Your task to perform on an android device: add a contact in the contacts app Image 0: 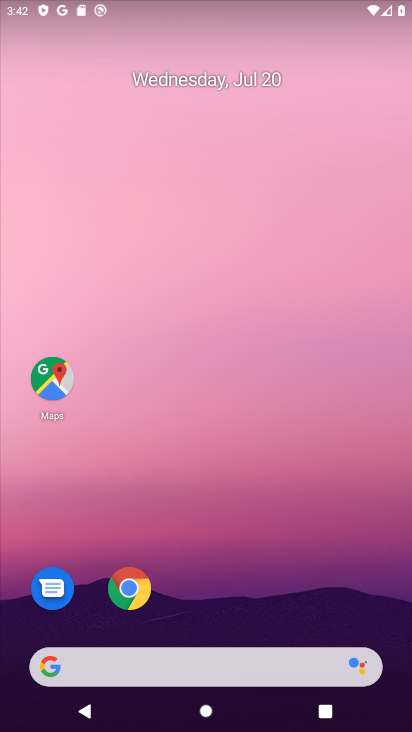
Step 0: drag from (194, 601) to (147, 291)
Your task to perform on an android device: add a contact in the contacts app Image 1: 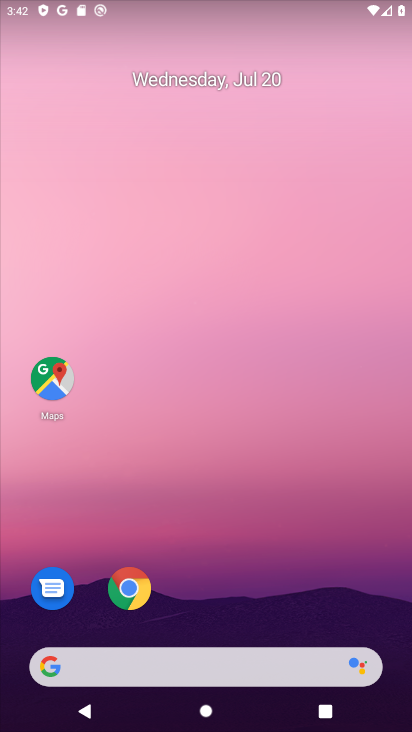
Step 1: click (202, 255)
Your task to perform on an android device: add a contact in the contacts app Image 2: 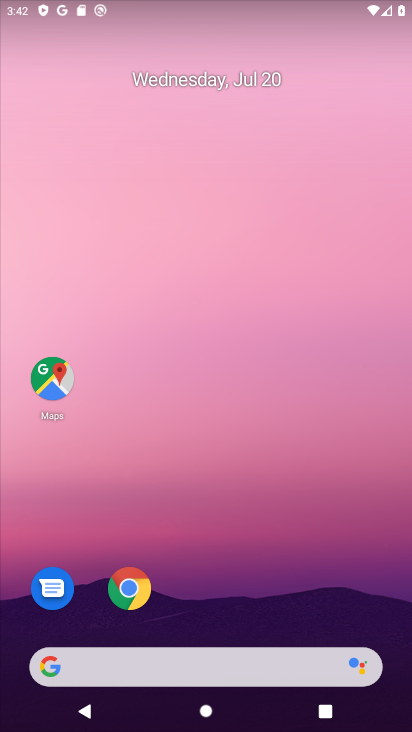
Step 2: drag from (196, 628) to (186, 176)
Your task to perform on an android device: add a contact in the contacts app Image 3: 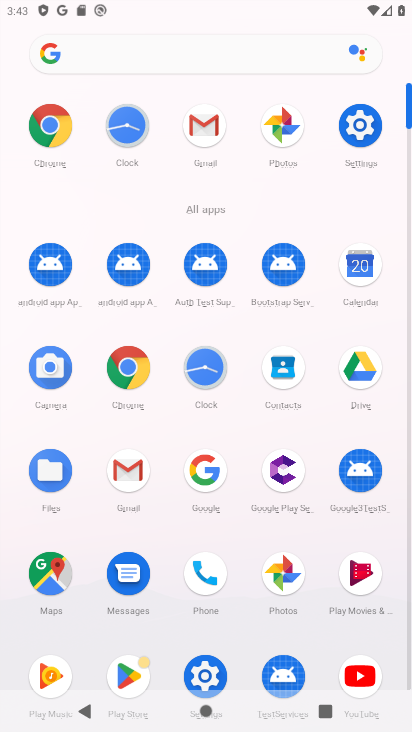
Step 3: click (292, 383)
Your task to perform on an android device: add a contact in the contacts app Image 4: 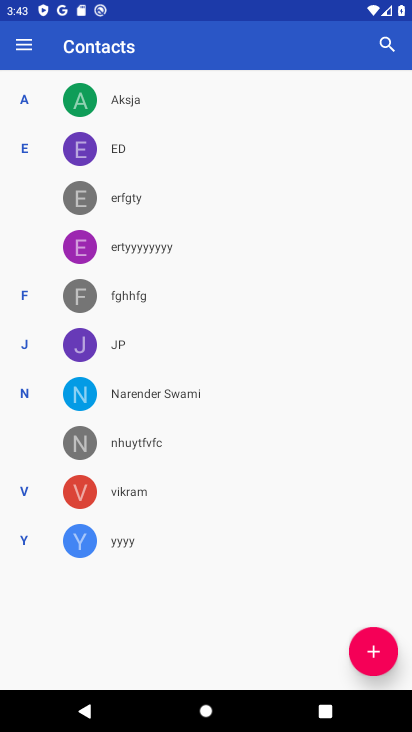
Step 4: click (369, 643)
Your task to perform on an android device: add a contact in the contacts app Image 5: 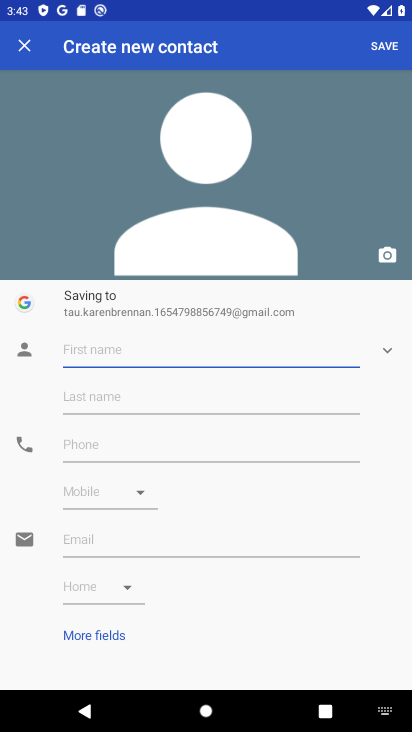
Step 5: type ",,,"
Your task to perform on an android device: add a contact in the contacts app Image 6: 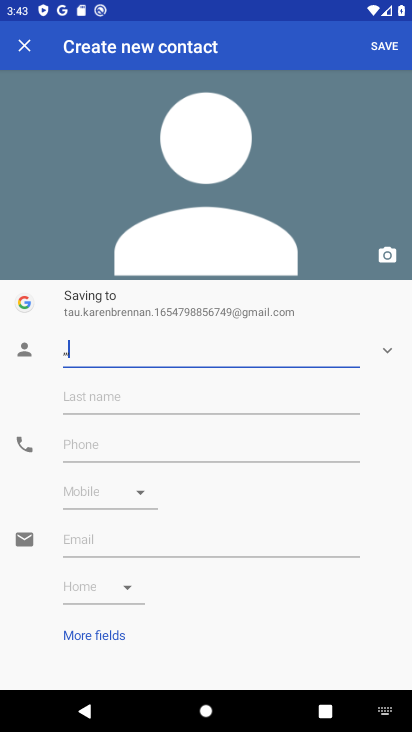
Step 6: click (399, 38)
Your task to perform on an android device: add a contact in the contacts app Image 7: 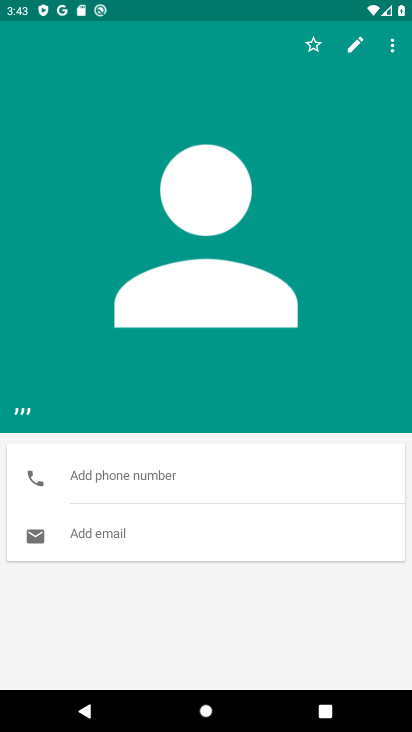
Step 7: task complete